Your task to perform on an android device: turn on sleep mode Image 0: 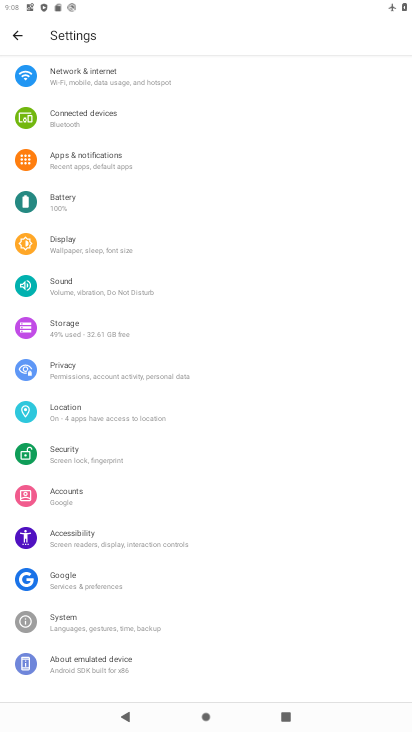
Step 0: drag from (192, 597) to (194, 242)
Your task to perform on an android device: turn on sleep mode Image 1: 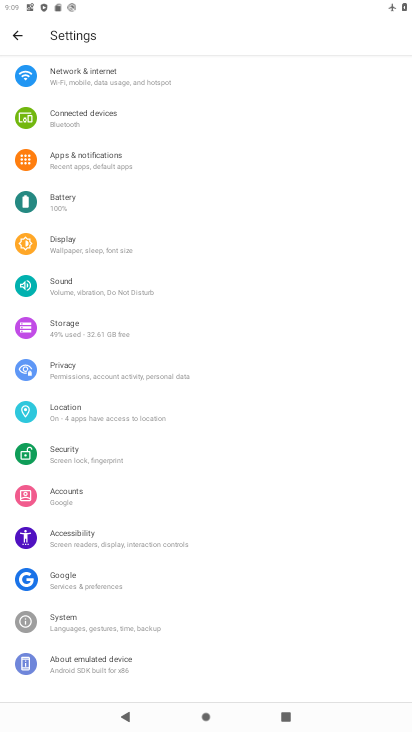
Step 1: task complete